Your task to perform on an android device: move a message to another label in the gmail app Image 0: 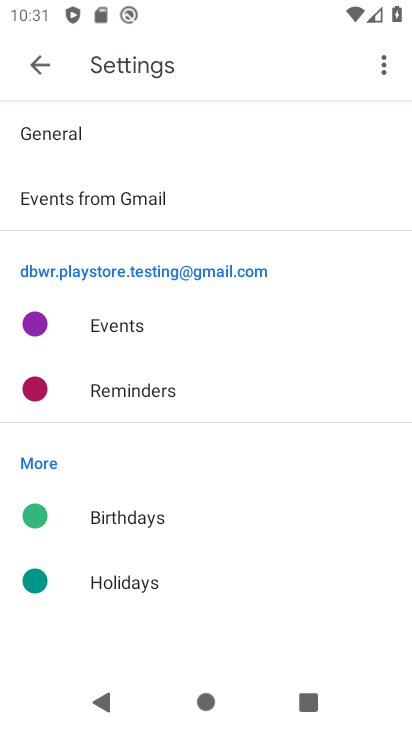
Step 0: press home button
Your task to perform on an android device: move a message to another label in the gmail app Image 1: 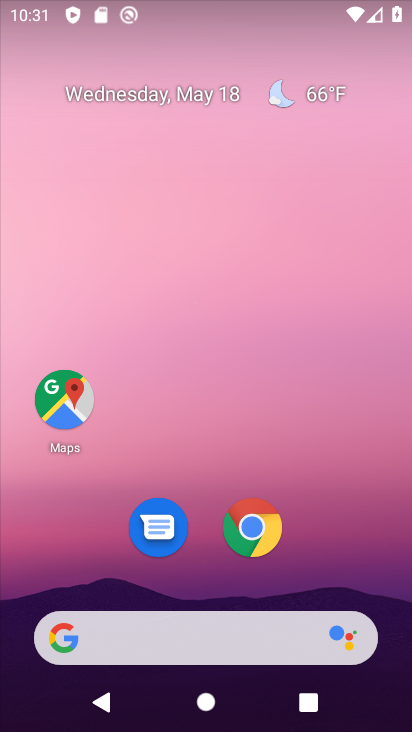
Step 1: drag from (361, 573) to (263, 118)
Your task to perform on an android device: move a message to another label in the gmail app Image 2: 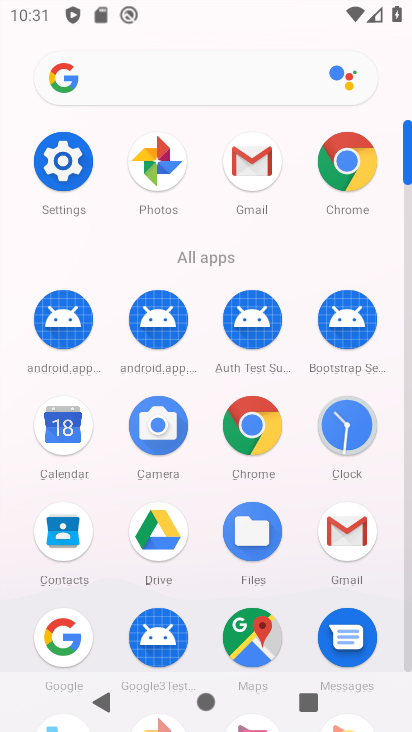
Step 2: click (258, 159)
Your task to perform on an android device: move a message to another label in the gmail app Image 3: 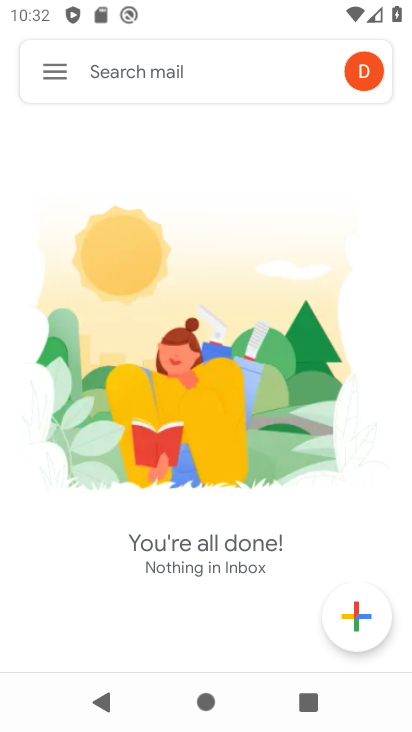
Step 3: task complete